Your task to perform on an android device: Check the weather Image 0: 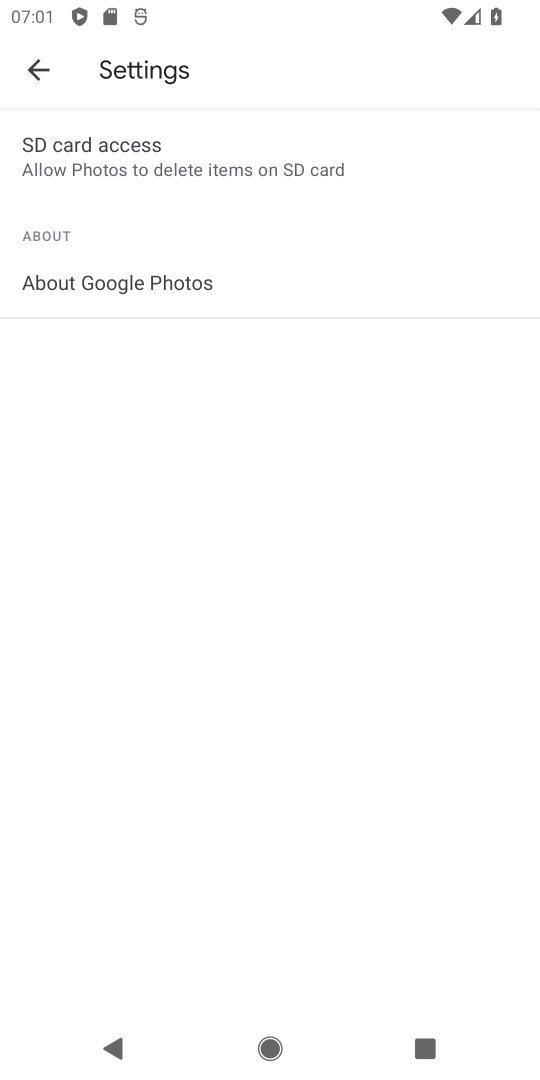
Step 0: press home button
Your task to perform on an android device: Check the weather Image 1: 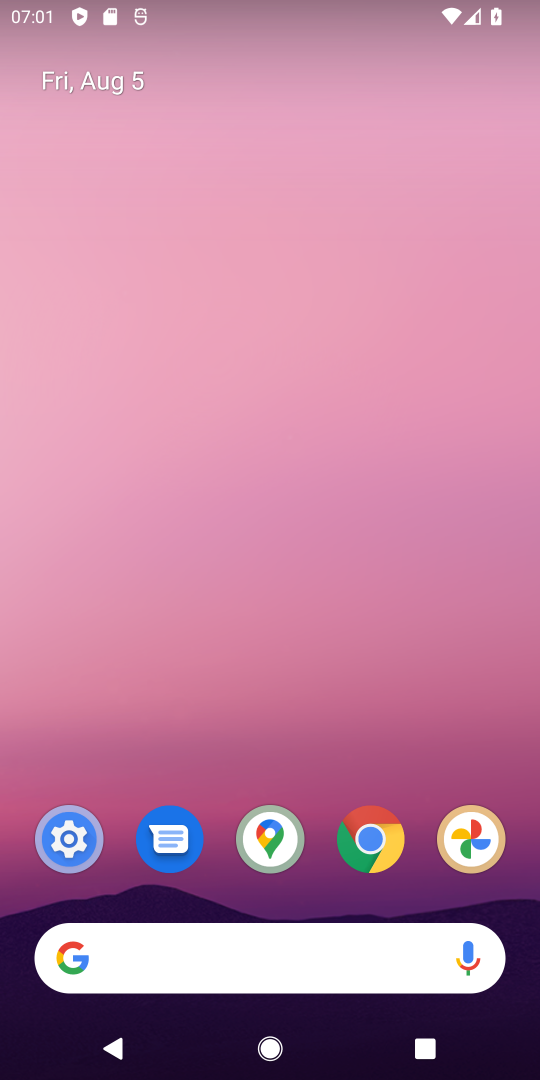
Step 1: drag from (312, 905) to (324, 156)
Your task to perform on an android device: Check the weather Image 2: 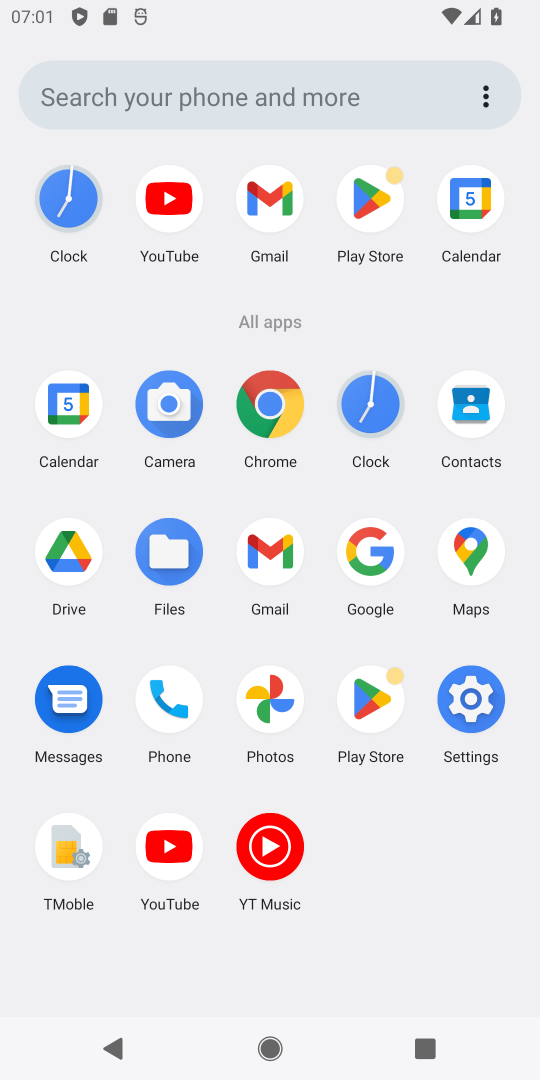
Step 2: click (372, 551)
Your task to perform on an android device: Check the weather Image 3: 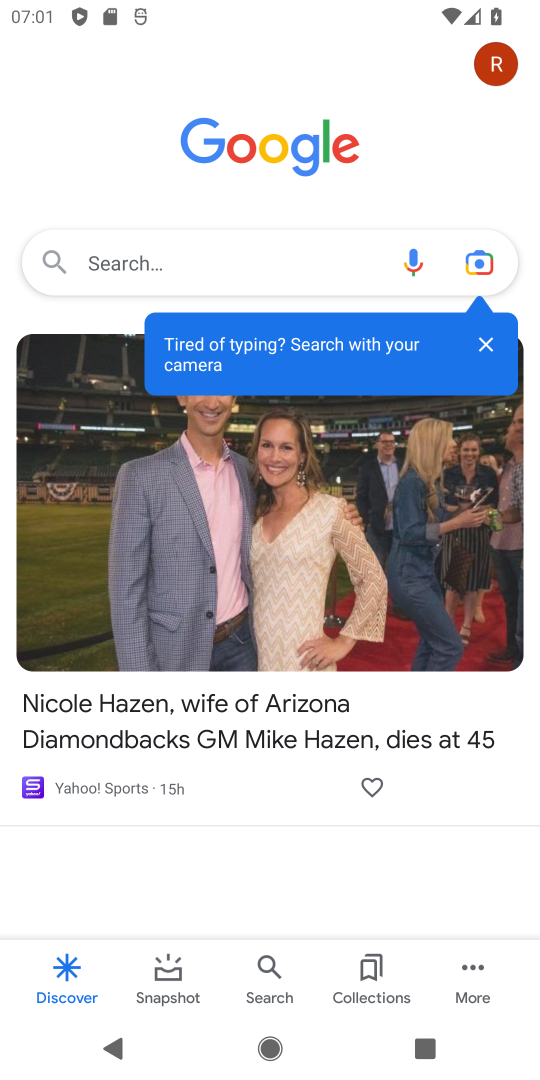
Step 3: click (190, 271)
Your task to perform on an android device: Check the weather Image 4: 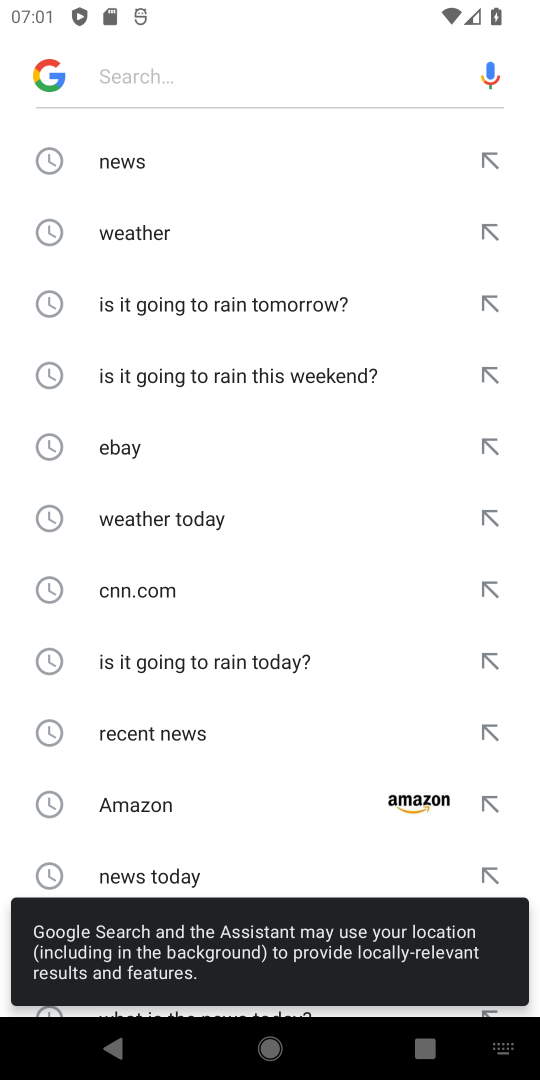
Step 4: click (125, 232)
Your task to perform on an android device: Check the weather Image 5: 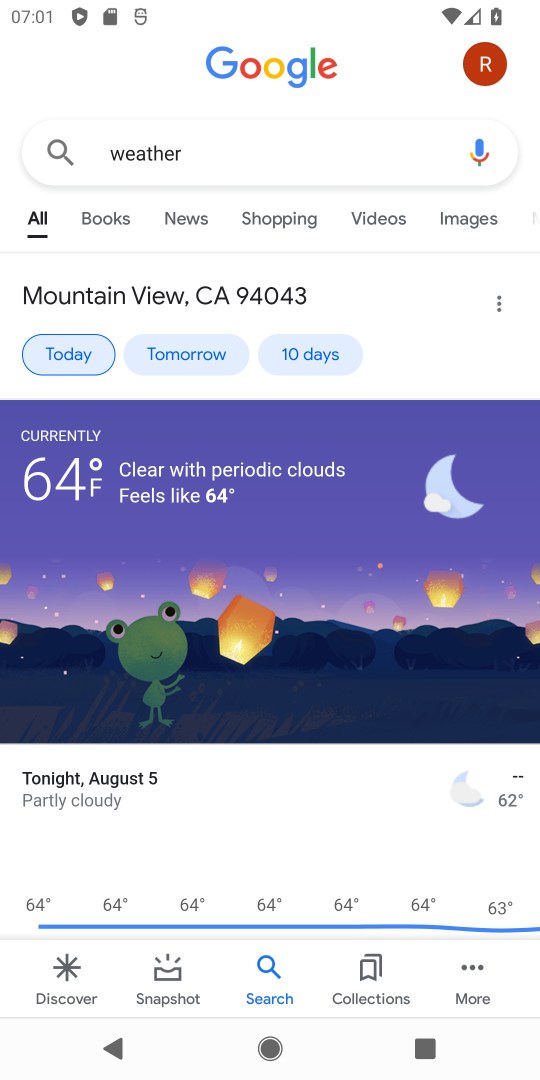
Step 5: click (75, 352)
Your task to perform on an android device: Check the weather Image 6: 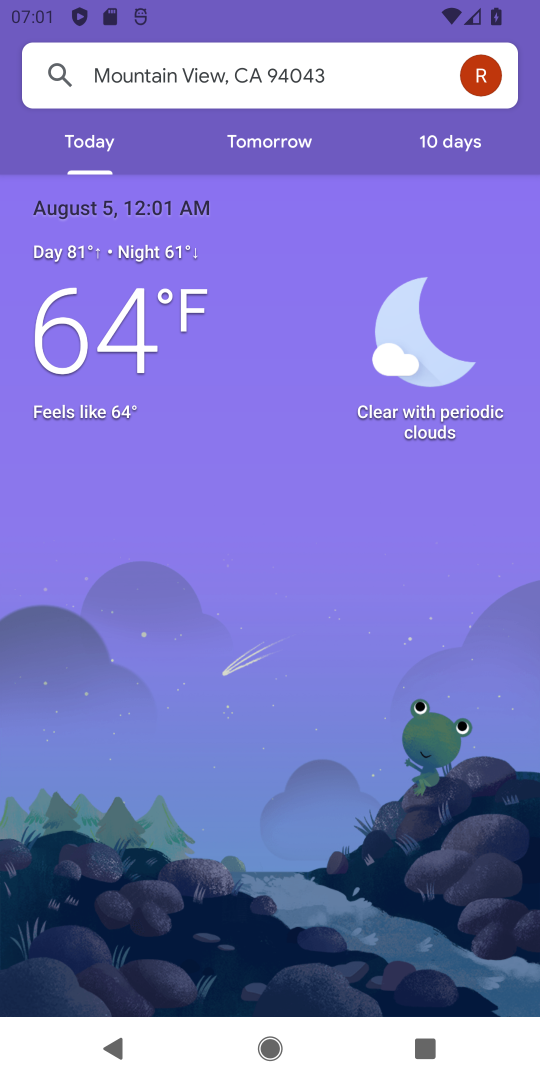
Step 6: task complete